Your task to perform on an android device: Open Yahoo.com Image 0: 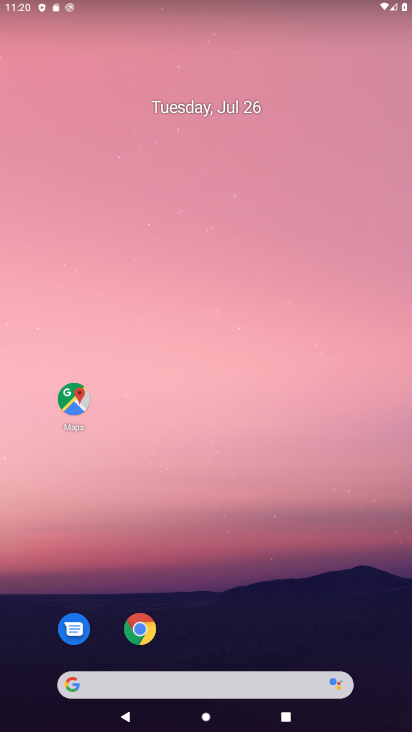
Step 0: click (140, 631)
Your task to perform on an android device: Open Yahoo.com Image 1: 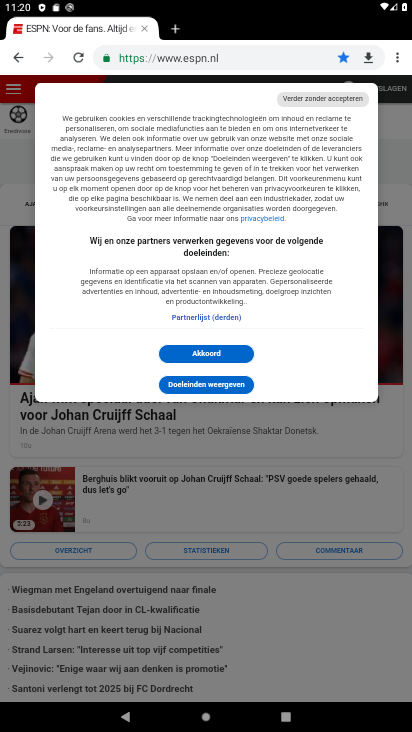
Step 1: click (397, 62)
Your task to perform on an android device: Open Yahoo.com Image 2: 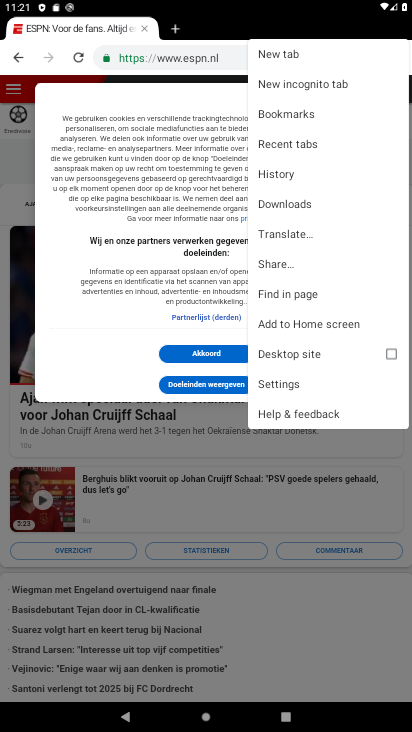
Step 2: click (277, 56)
Your task to perform on an android device: Open Yahoo.com Image 3: 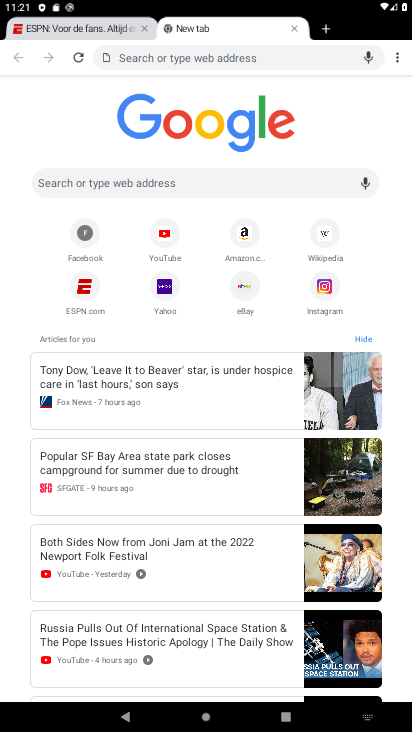
Step 3: click (165, 283)
Your task to perform on an android device: Open Yahoo.com Image 4: 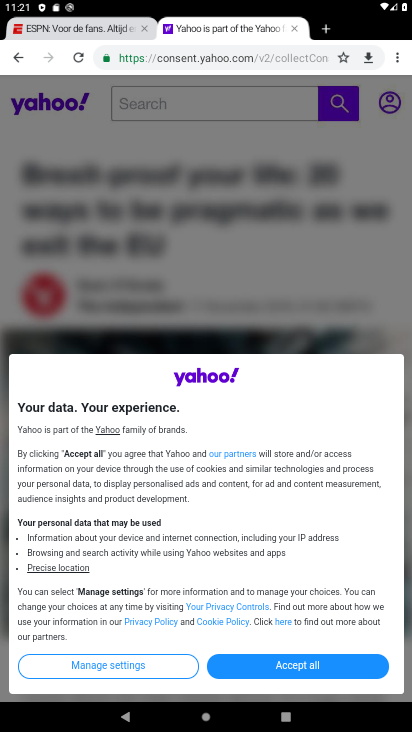
Step 4: task complete